Your task to perform on an android device: Show me popular games on the Play Store Image 0: 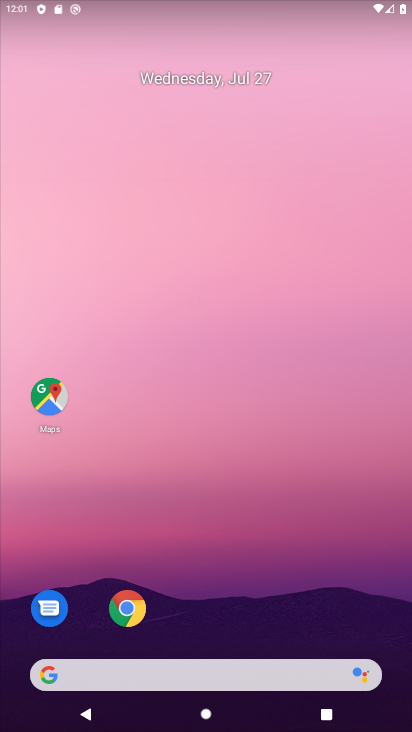
Step 0: press home button
Your task to perform on an android device: Show me popular games on the Play Store Image 1: 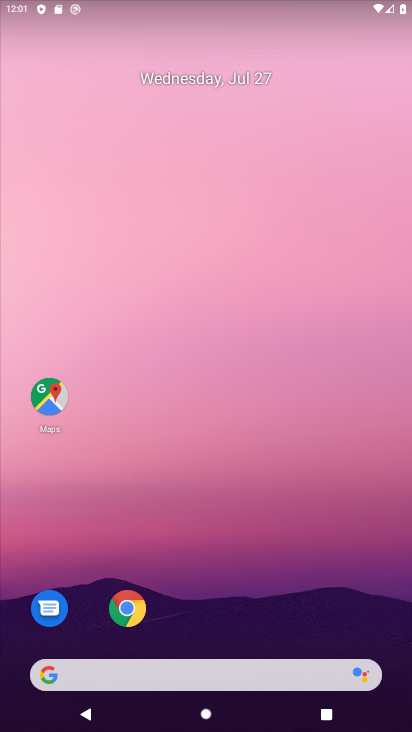
Step 1: drag from (370, 611) to (377, 160)
Your task to perform on an android device: Show me popular games on the Play Store Image 2: 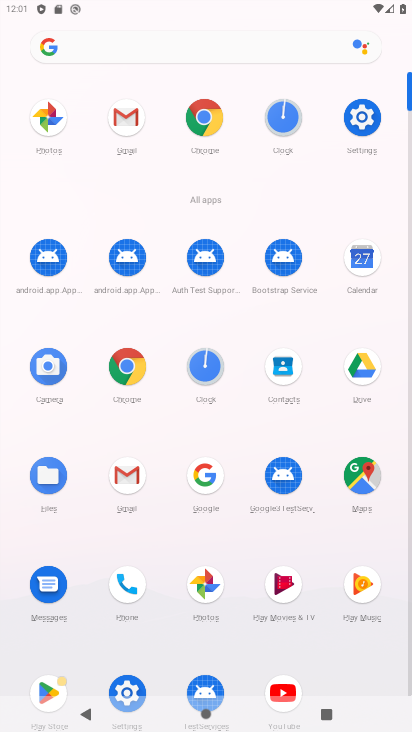
Step 2: drag from (395, 555) to (393, 378)
Your task to perform on an android device: Show me popular games on the Play Store Image 3: 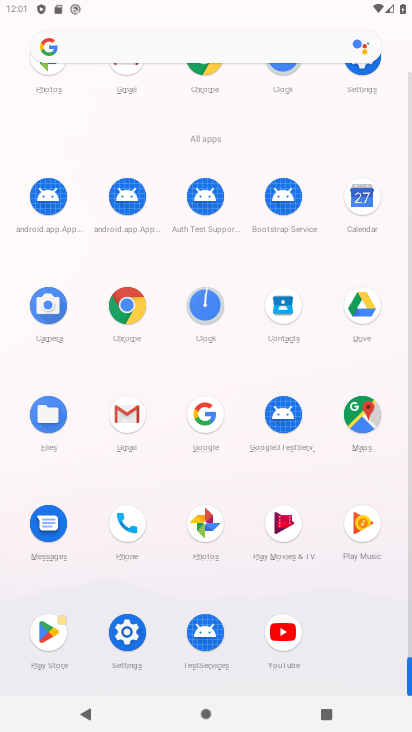
Step 3: click (48, 629)
Your task to perform on an android device: Show me popular games on the Play Store Image 4: 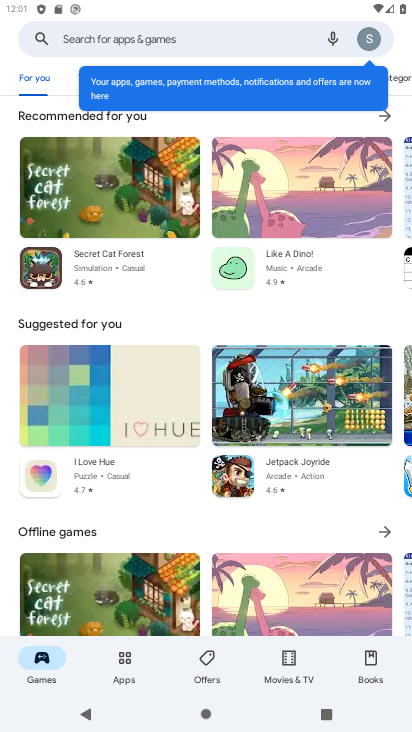
Step 4: task complete